Your task to perform on an android device: Open calendar and show me the first week of next month Image 0: 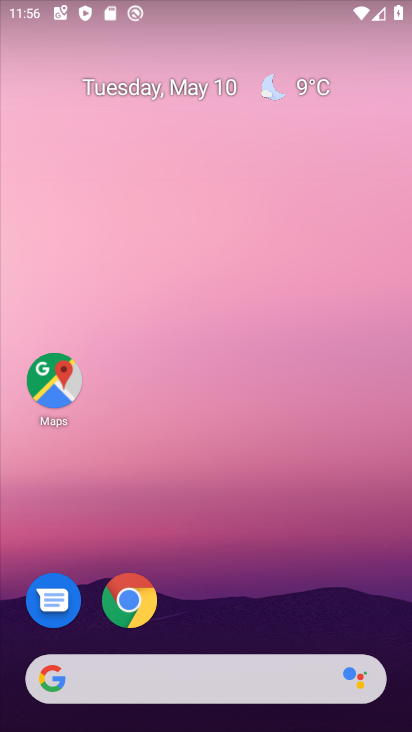
Step 0: drag from (162, 714) to (195, 41)
Your task to perform on an android device: Open calendar and show me the first week of next month Image 1: 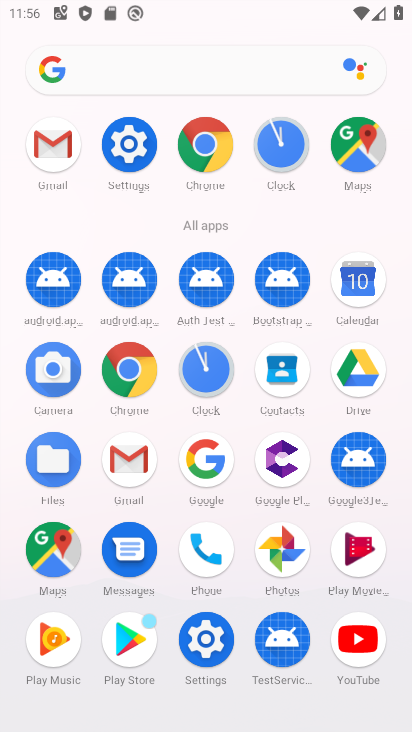
Step 1: click (360, 279)
Your task to perform on an android device: Open calendar and show me the first week of next month Image 2: 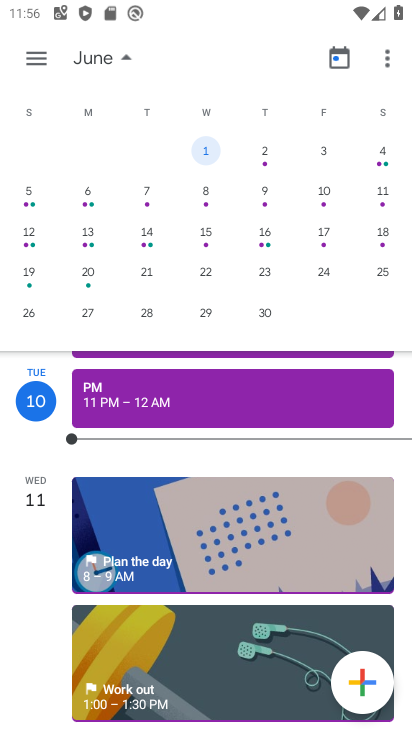
Step 2: task complete